Your task to perform on an android device: delete location history Image 0: 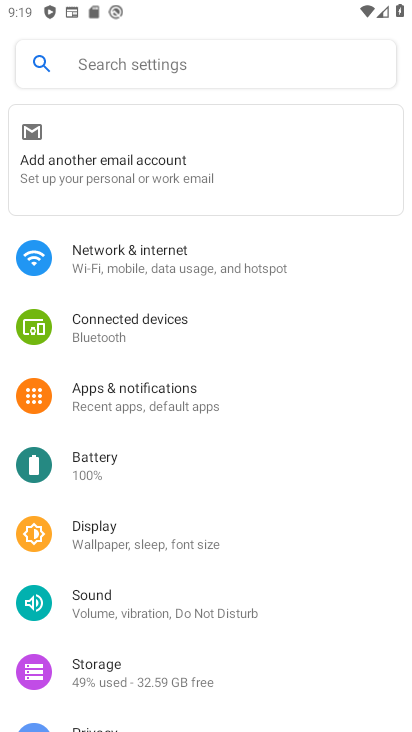
Step 0: press home button
Your task to perform on an android device: delete location history Image 1: 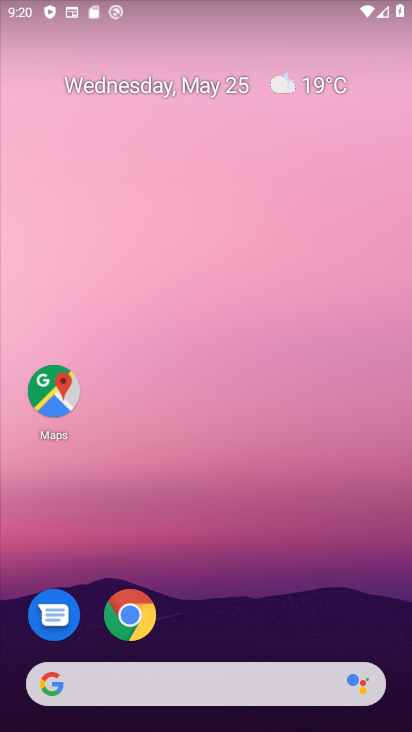
Step 1: drag from (239, 711) to (302, 99)
Your task to perform on an android device: delete location history Image 2: 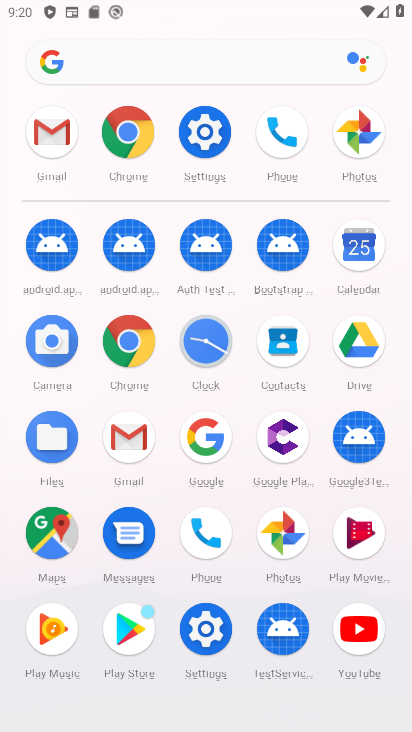
Step 2: click (198, 126)
Your task to perform on an android device: delete location history Image 3: 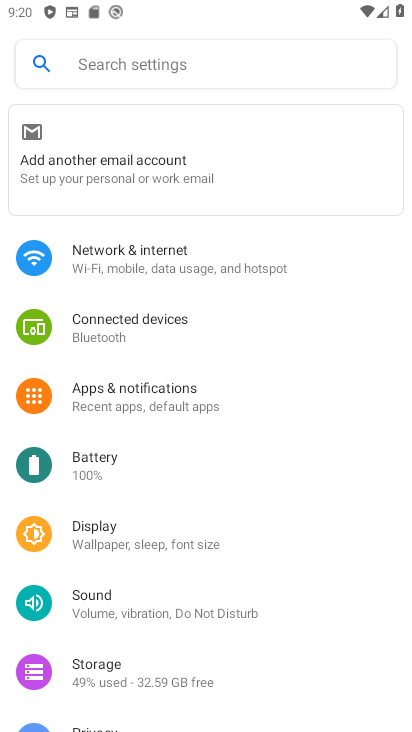
Step 3: click (174, 68)
Your task to perform on an android device: delete location history Image 4: 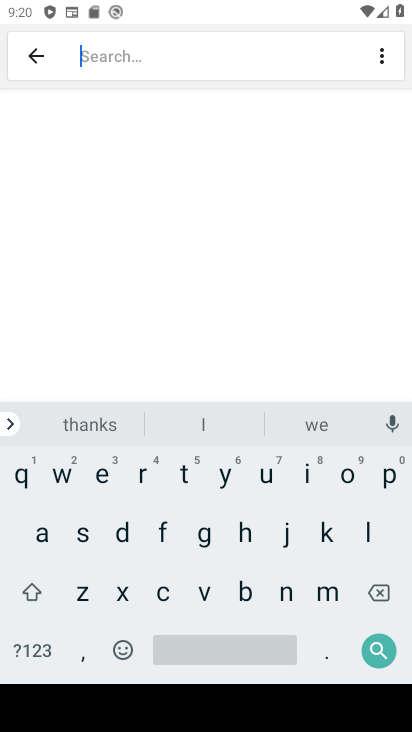
Step 4: click (356, 535)
Your task to perform on an android device: delete location history Image 5: 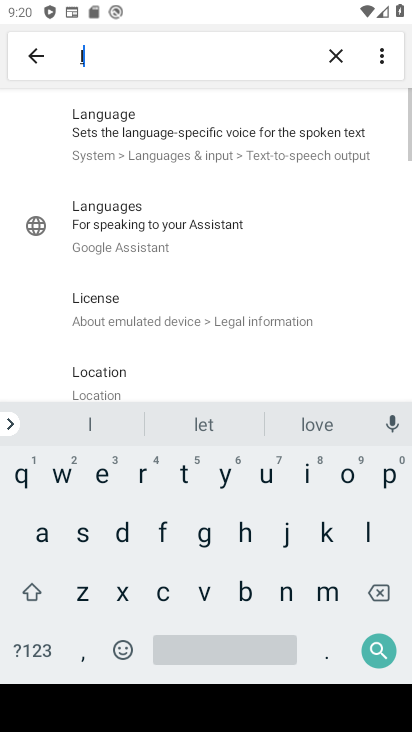
Step 5: click (340, 476)
Your task to perform on an android device: delete location history Image 6: 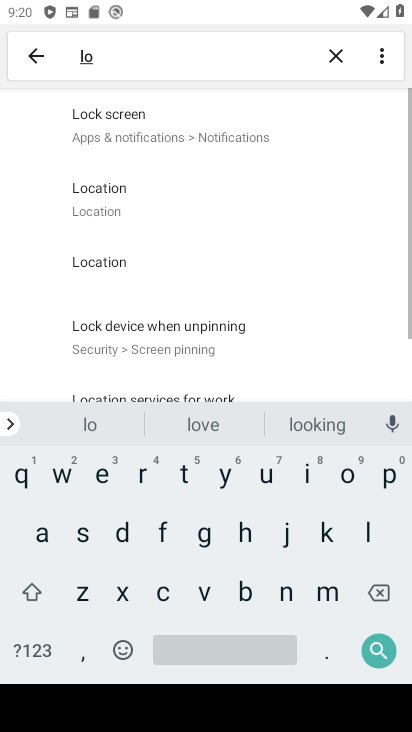
Step 6: click (146, 214)
Your task to perform on an android device: delete location history Image 7: 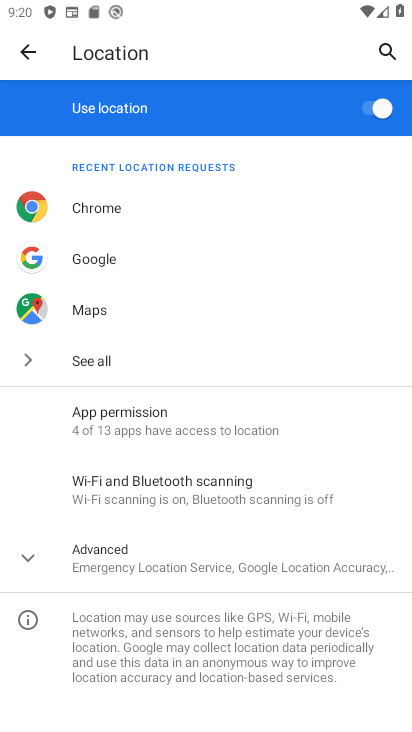
Step 7: click (20, 567)
Your task to perform on an android device: delete location history Image 8: 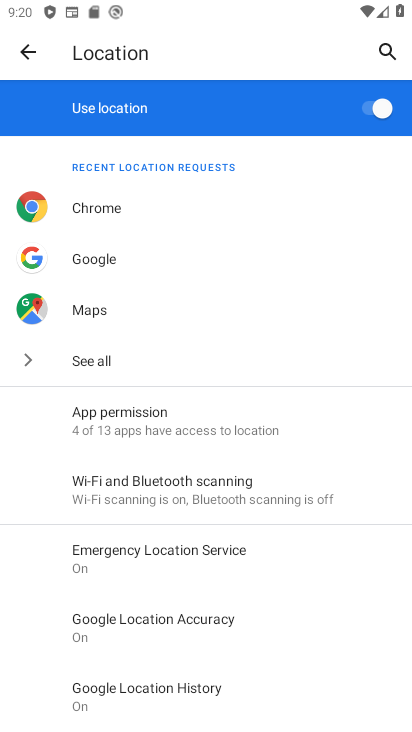
Step 8: click (153, 686)
Your task to perform on an android device: delete location history Image 9: 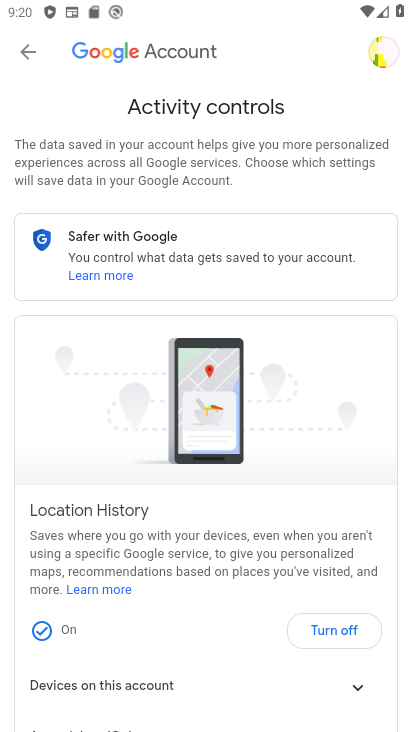
Step 9: drag from (168, 508) to (170, 241)
Your task to perform on an android device: delete location history Image 10: 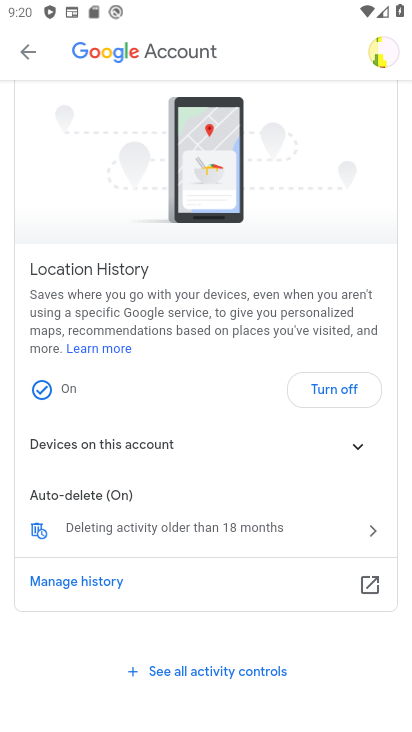
Step 10: click (208, 530)
Your task to perform on an android device: delete location history Image 11: 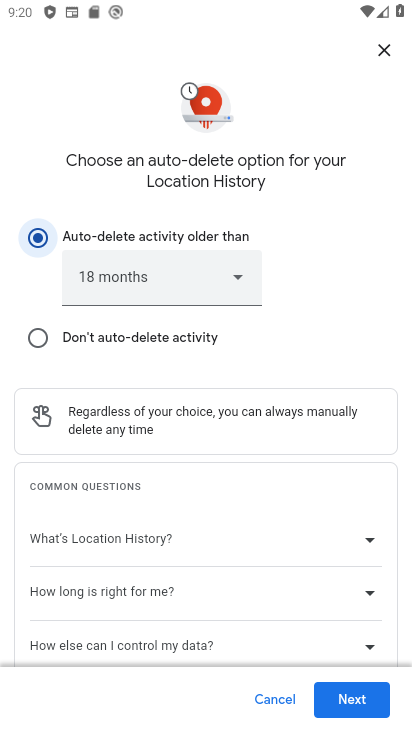
Step 11: task complete